Your task to perform on an android device: uninstall "McDonald's" Image 0: 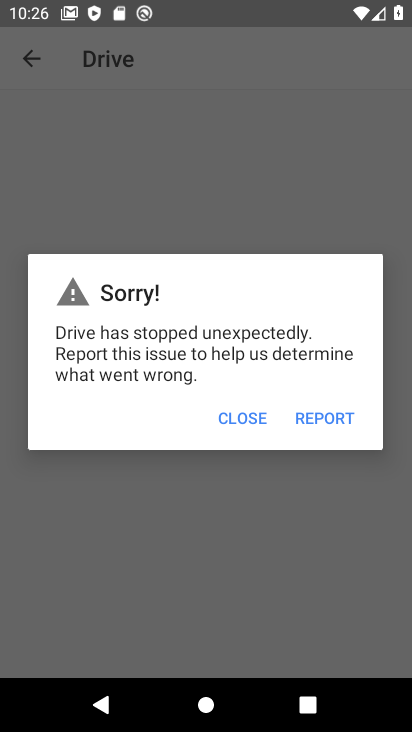
Step 0: press home button
Your task to perform on an android device: uninstall "McDonald's" Image 1: 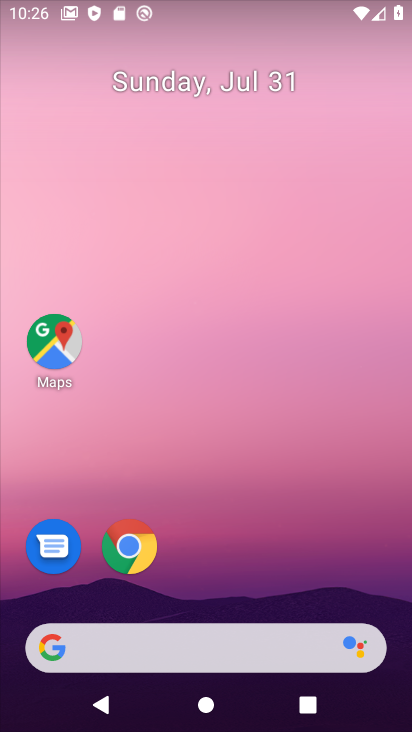
Step 1: drag from (257, 659) to (203, 64)
Your task to perform on an android device: uninstall "McDonald's" Image 2: 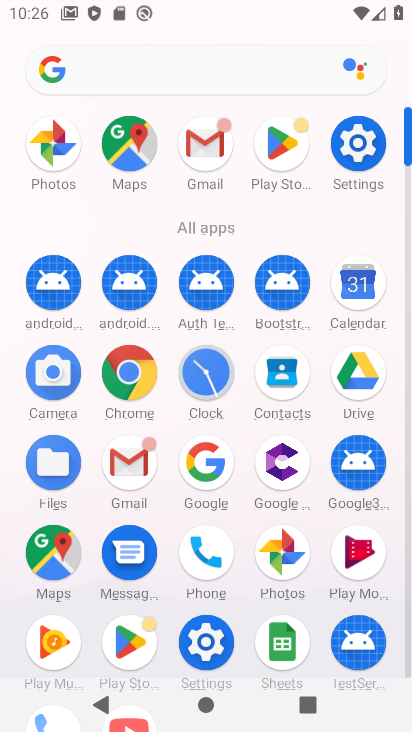
Step 2: click (267, 148)
Your task to perform on an android device: uninstall "McDonald's" Image 3: 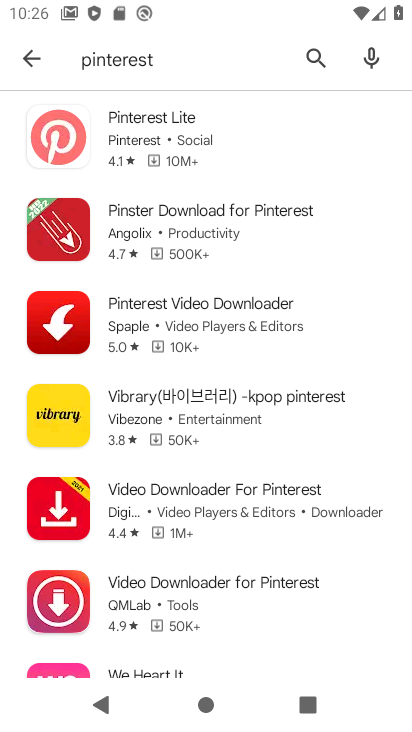
Step 3: click (304, 54)
Your task to perform on an android device: uninstall "McDonald's" Image 4: 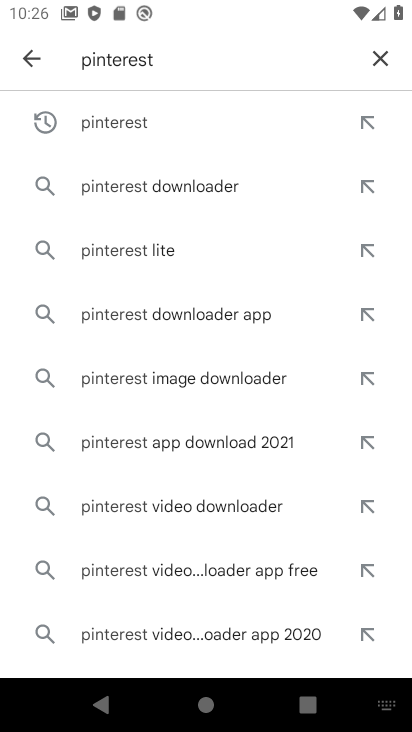
Step 4: click (304, 54)
Your task to perform on an android device: uninstall "McDonald's" Image 5: 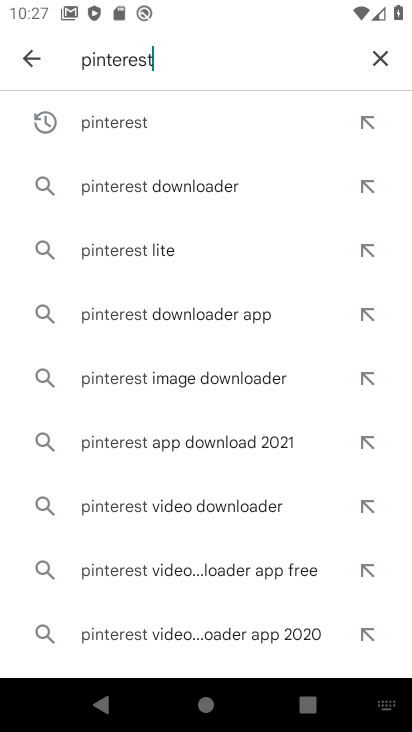
Step 5: click (384, 56)
Your task to perform on an android device: uninstall "McDonald's" Image 6: 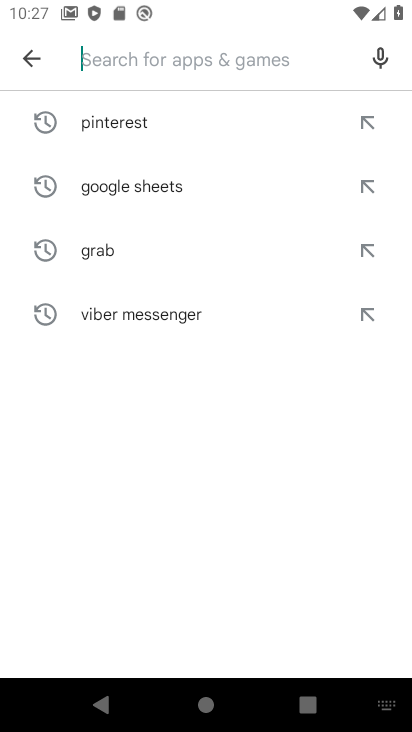
Step 6: type "mcdonalds"
Your task to perform on an android device: uninstall "McDonald's" Image 7: 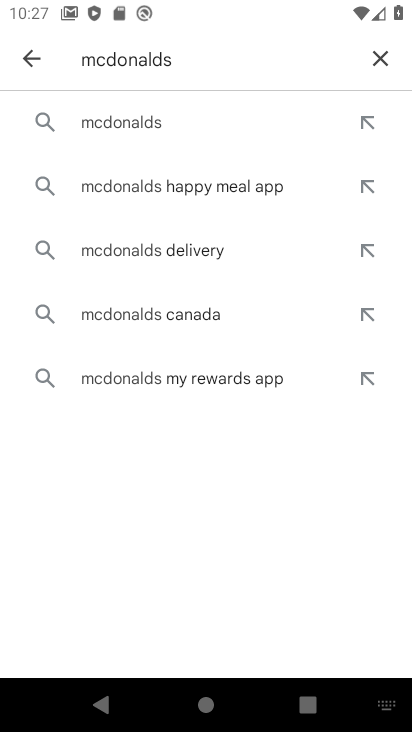
Step 7: click (216, 121)
Your task to perform on an android device: uninstall "McDonald's" Image 8: 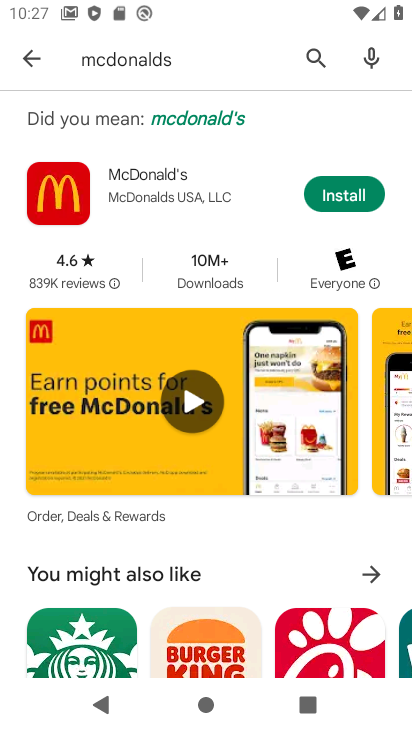
Step 8: task complete